Your task to perform on an android device: What's the weather going to be this weekend? Image 0: 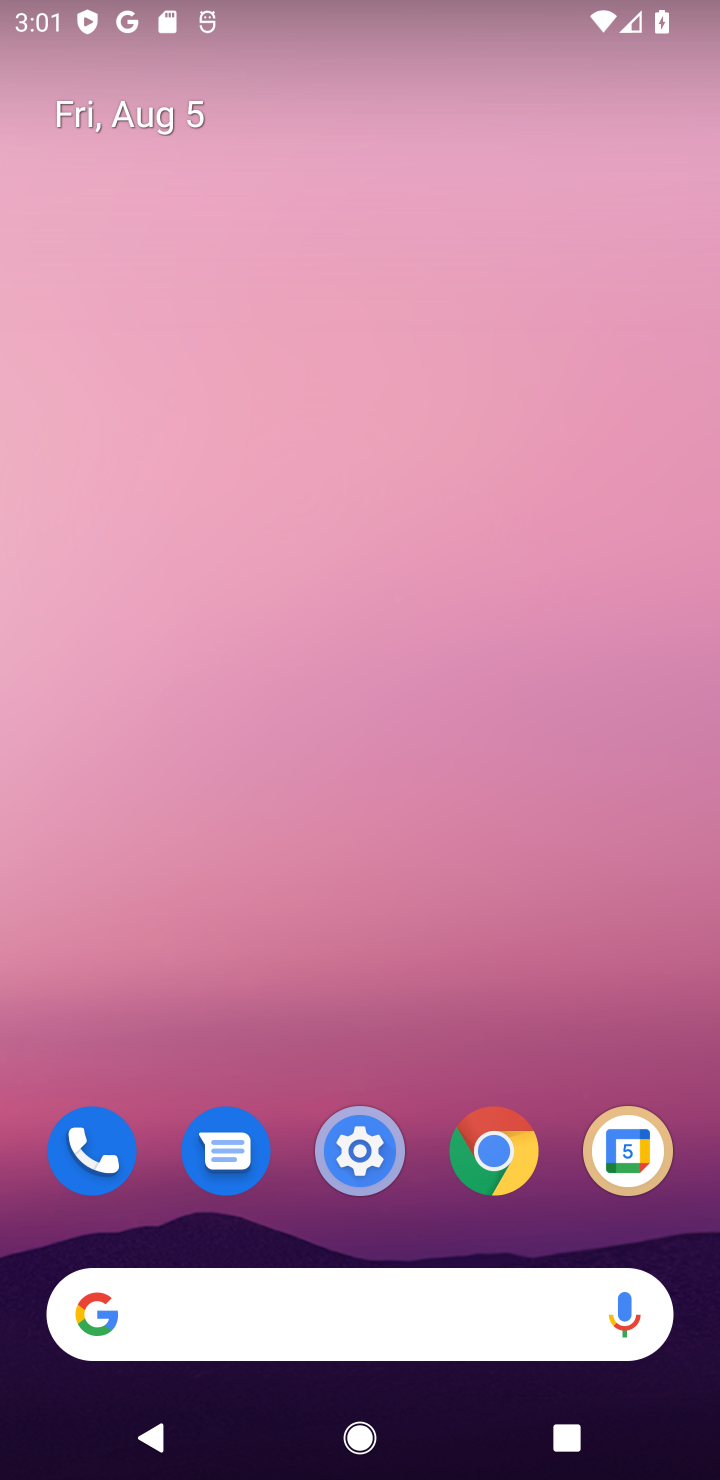
Step 0: click (283, 1289)
Your task to perform on an android device: What's the weather going to be this weekend? Image 1: 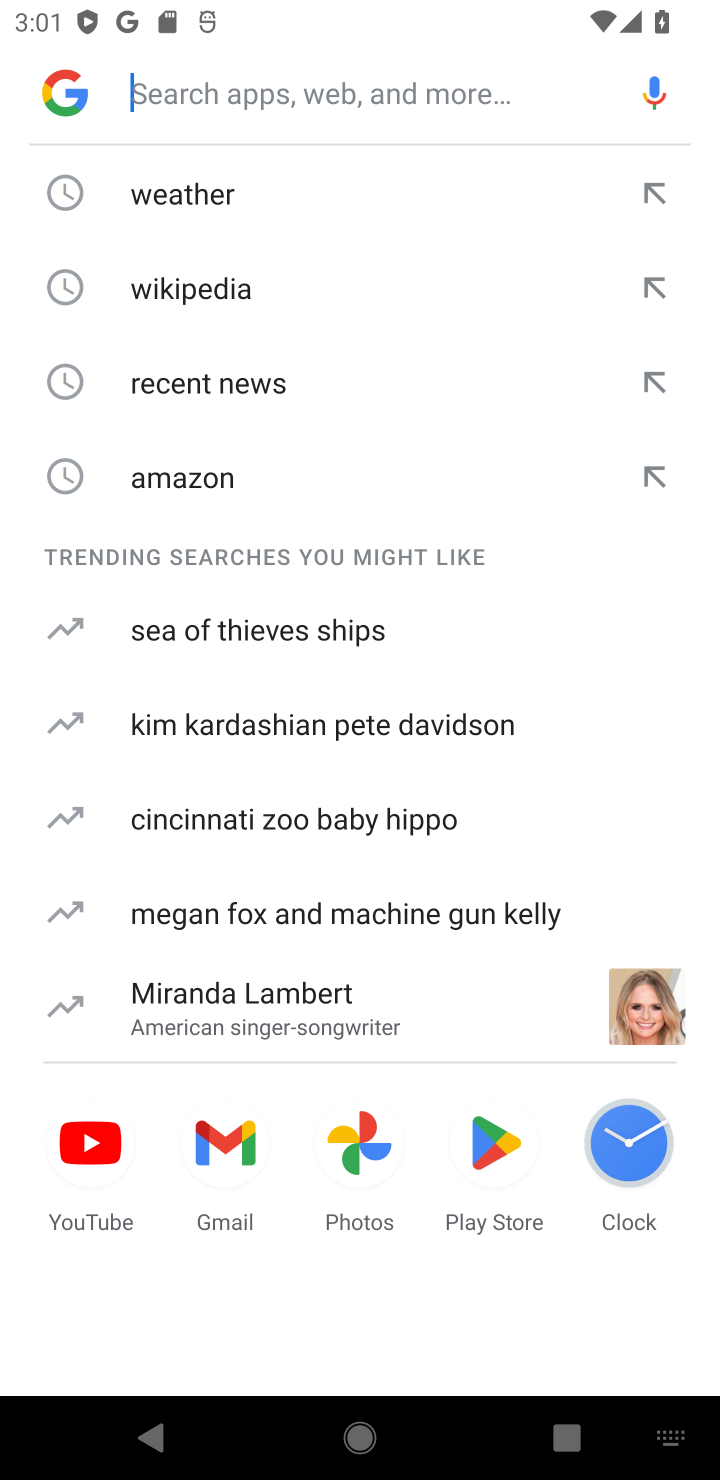
Step 1: type "what's the weather going to be this weekend"
Your task to perform on an android device: What's the weather going to be this weekend? Image 2: 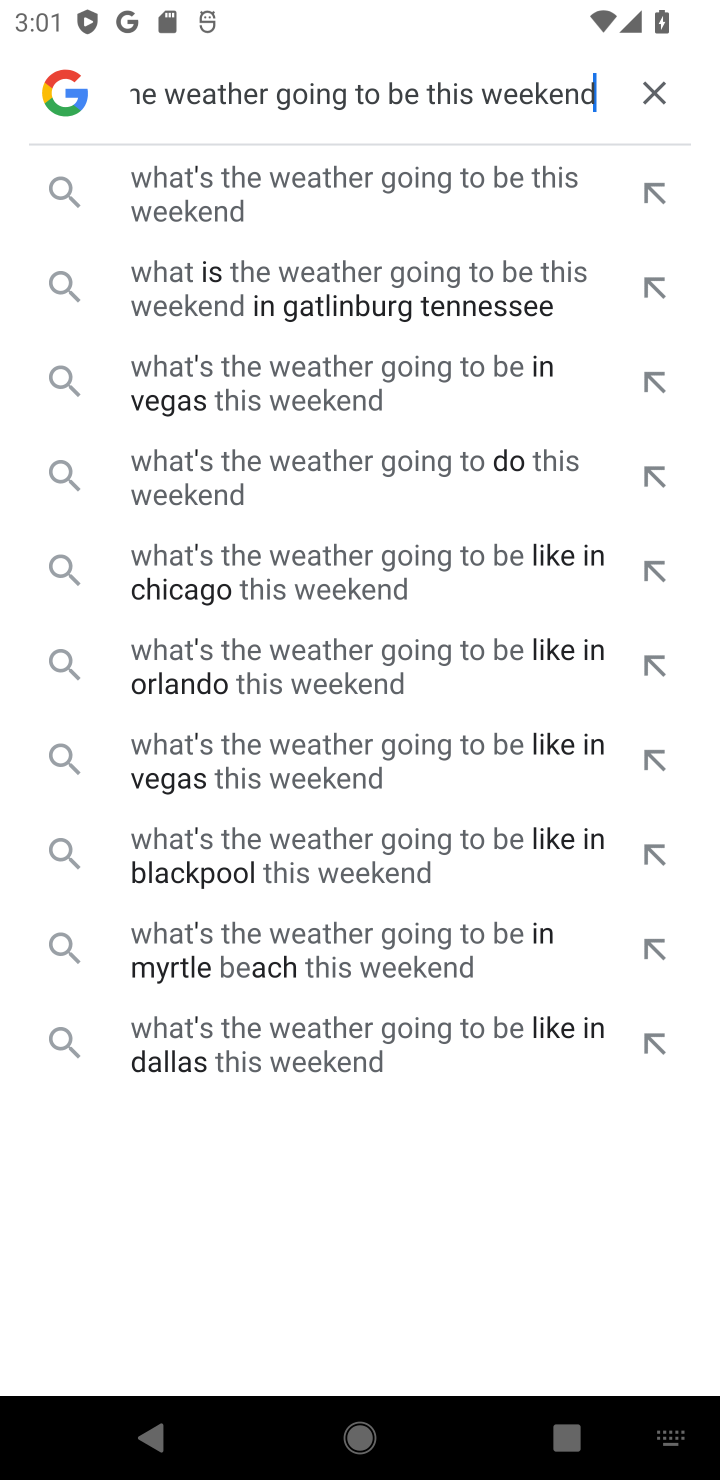
Step 2: click (262, 181)
Your task to perform on an android device: What's the weather going to be this weekend? Image 3: 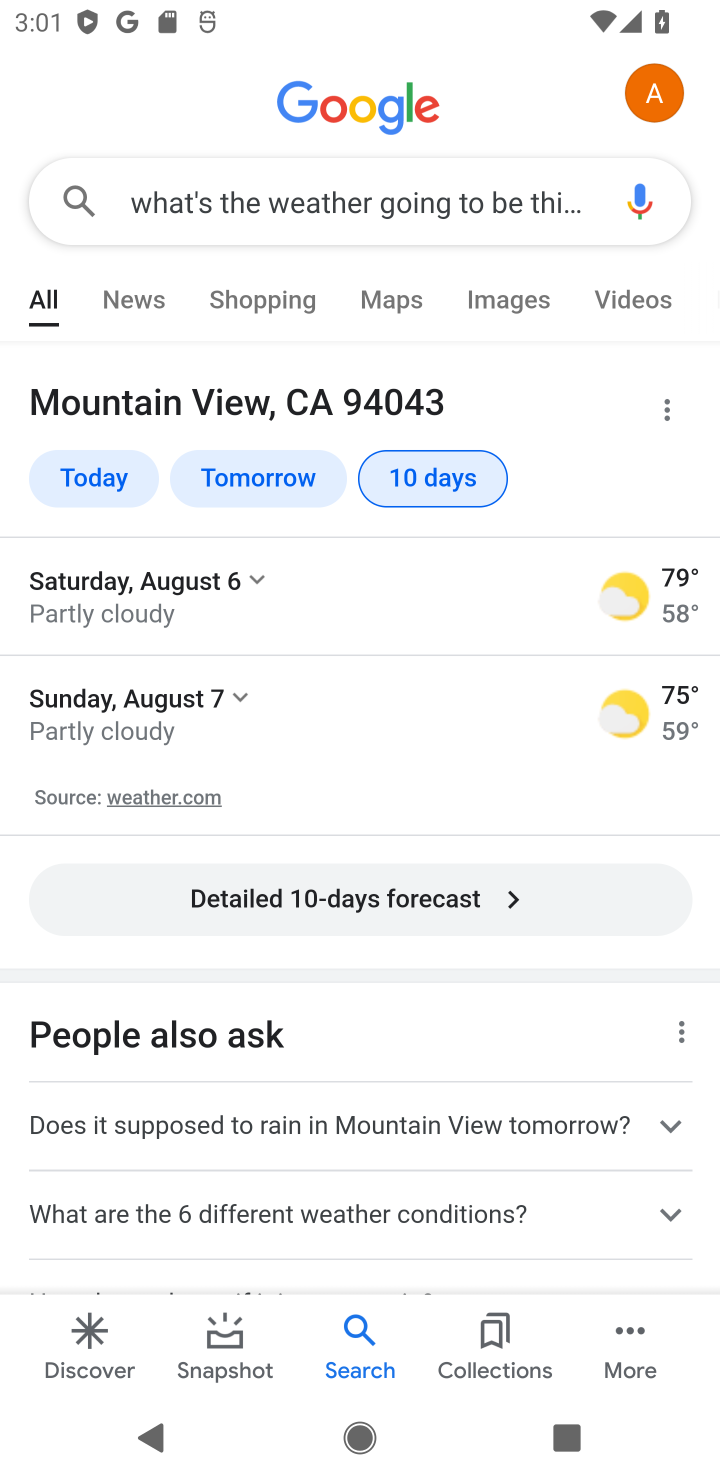
Step 3: task complete